Your task to perform on an android device: Search for Italian restaurants on Maps Image 0: 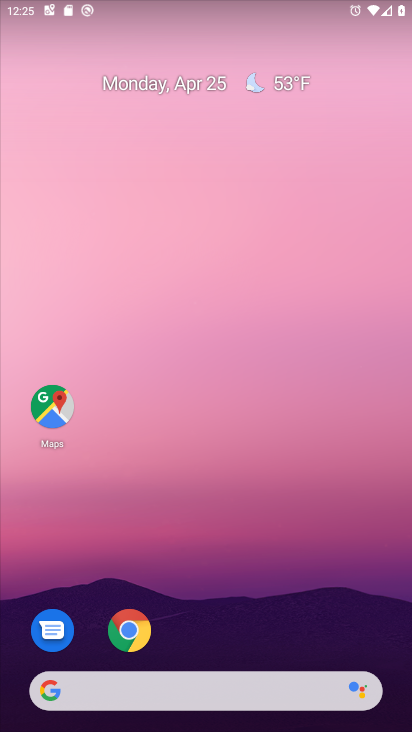
Step 0: drag from (383, 278) to (231, 67)
Your task to perform on an android device: Search for Italian restaurants on Maps Image 1: 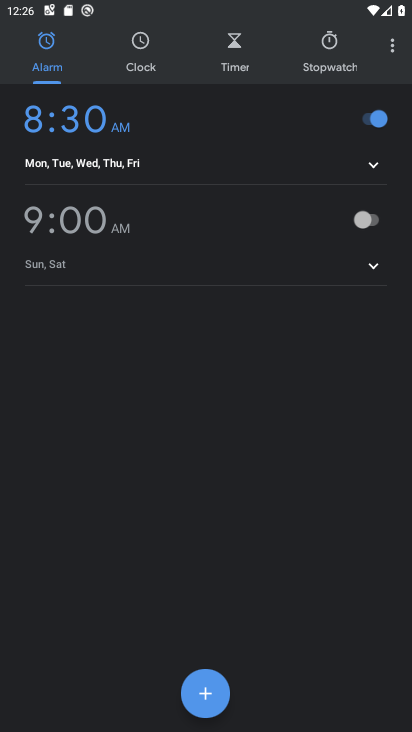
Step 1: press home button
Your task to perform on an android device: Search for Italian restaurants on Maps Image 2: 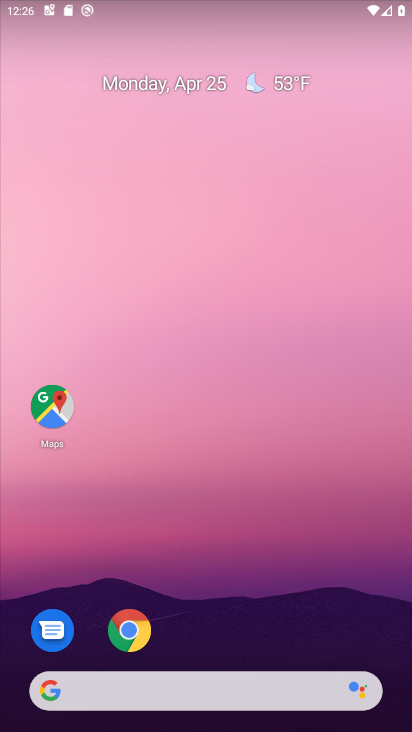
Step 2: drag from (176, 575) to (175, 182)
Your task to perform on an android device: Search for Italian restaurants on Maps Image 3: 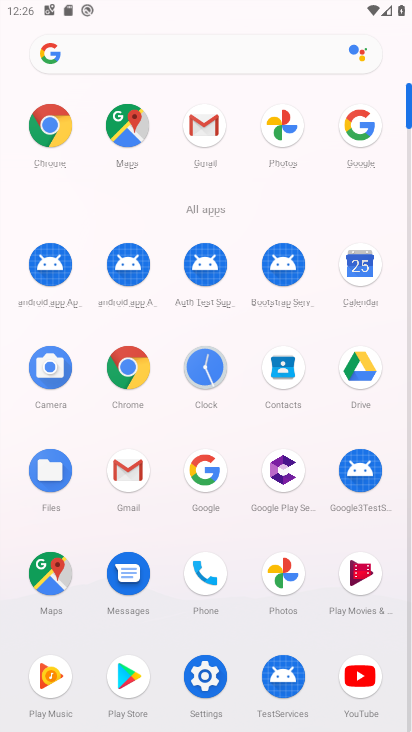
Step 3: click (46, 571)
Your task to perform on an android device: Search for Italian restaurants on Maps Image 4: 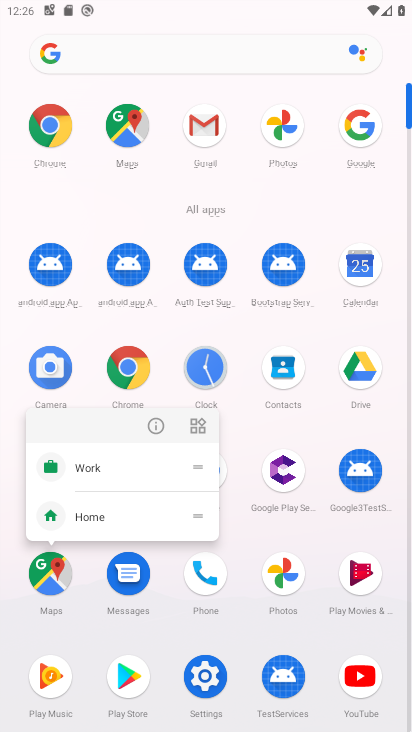
Step 4: click (155, 429)
Your task to perform on an android device: Search for Italian restaurants on Maps Image 5: 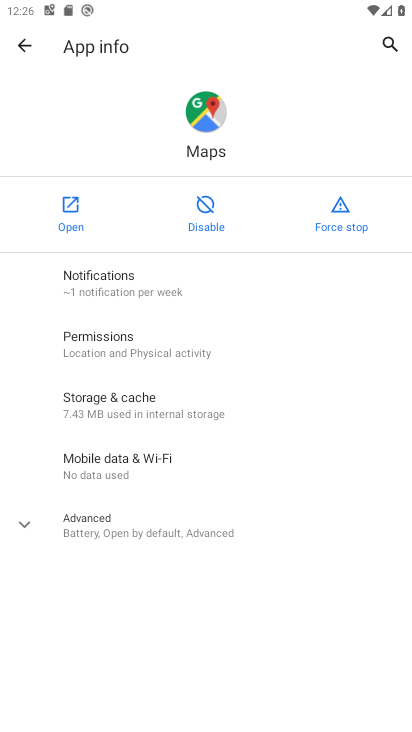
Step 5: click (78, 219)
Your task to perform on an android device: Search for Italian restaurants on Maps Image 6: 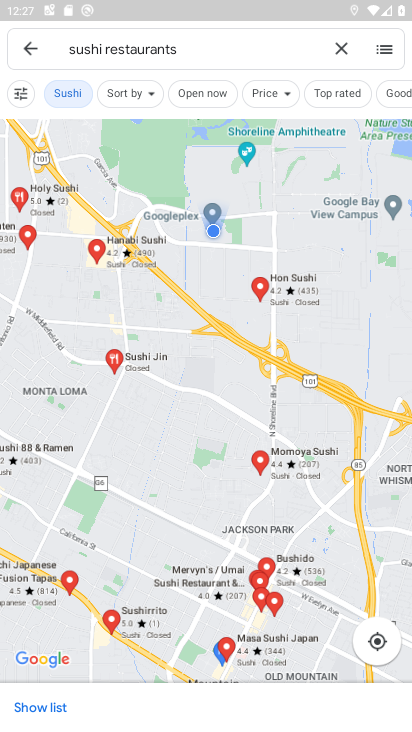
Step 6: click (338, 55)
Your task to perform on an android device: Search for Italian restaurants on Maps Image 7: 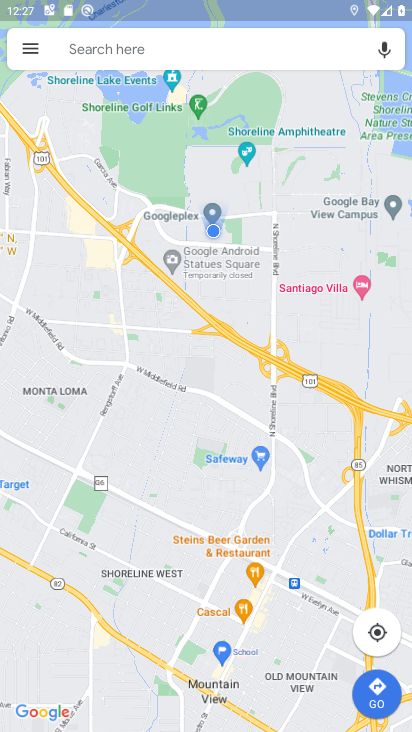
Step 7: click (272, 46)
Your task to perform on an android device: Search for Italian restaurants on Maps Image 8: 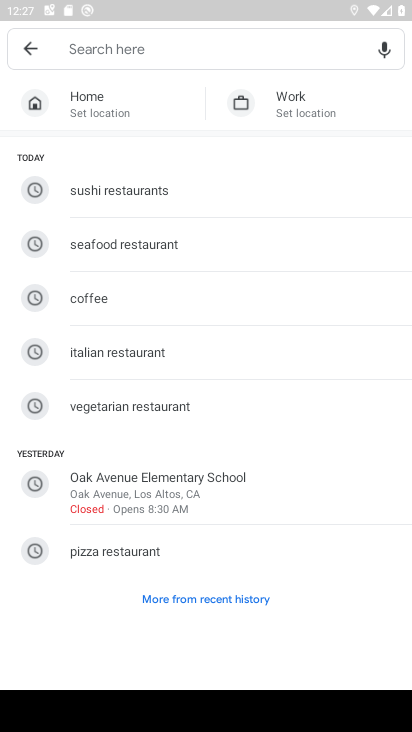
Step 8: click (156, 339)
Your task to perform on an android device: Search for Italian restaurants on Maps Image 9: 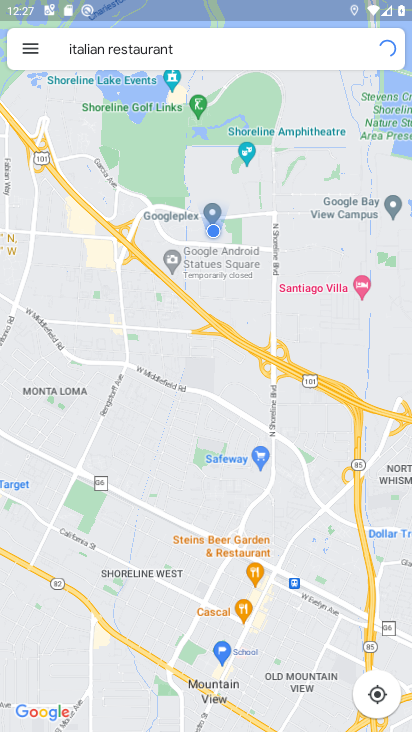
Step 9: task complete